Your task to perform on an android device: Set an alarm for 4pm Image 0: 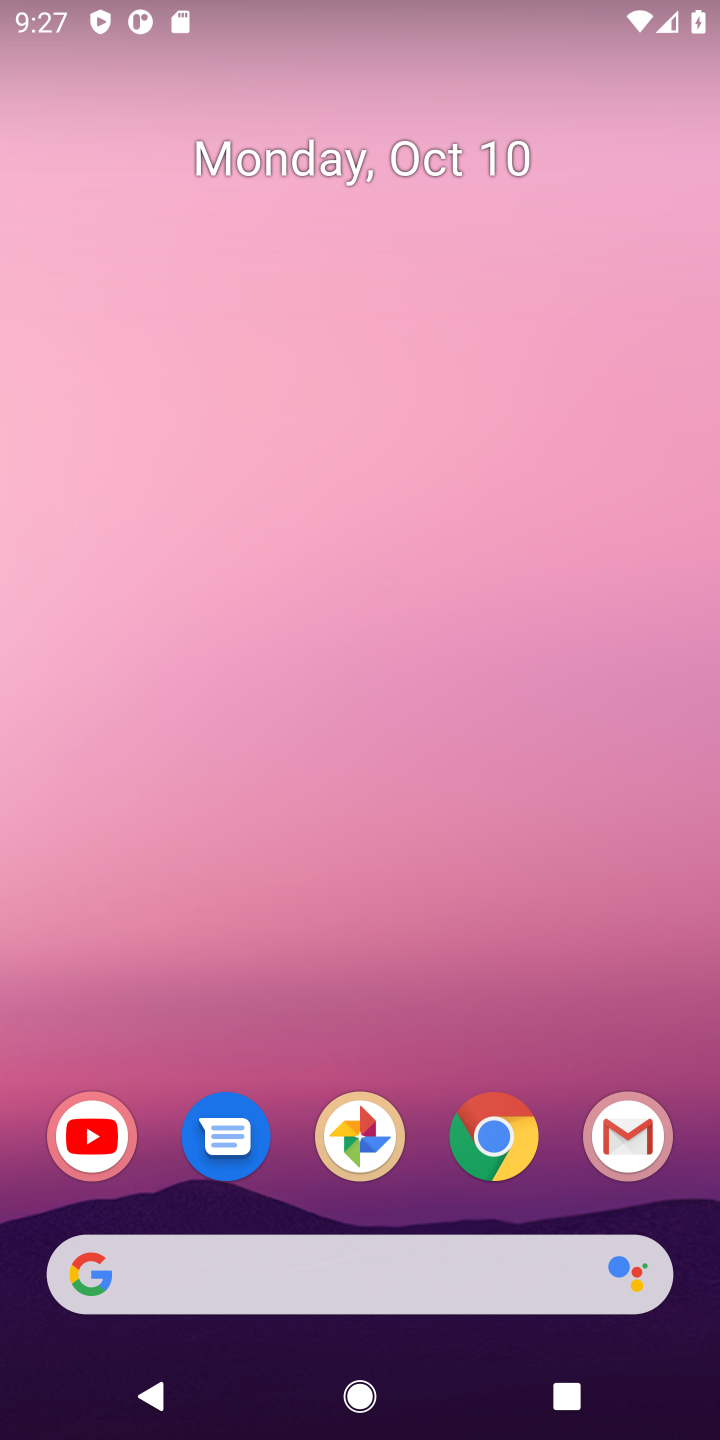
Step 0: drag from (450, 1208) to (500, 452)
Your task to perform on an android device: Set an alarm for 4pm Image 1: 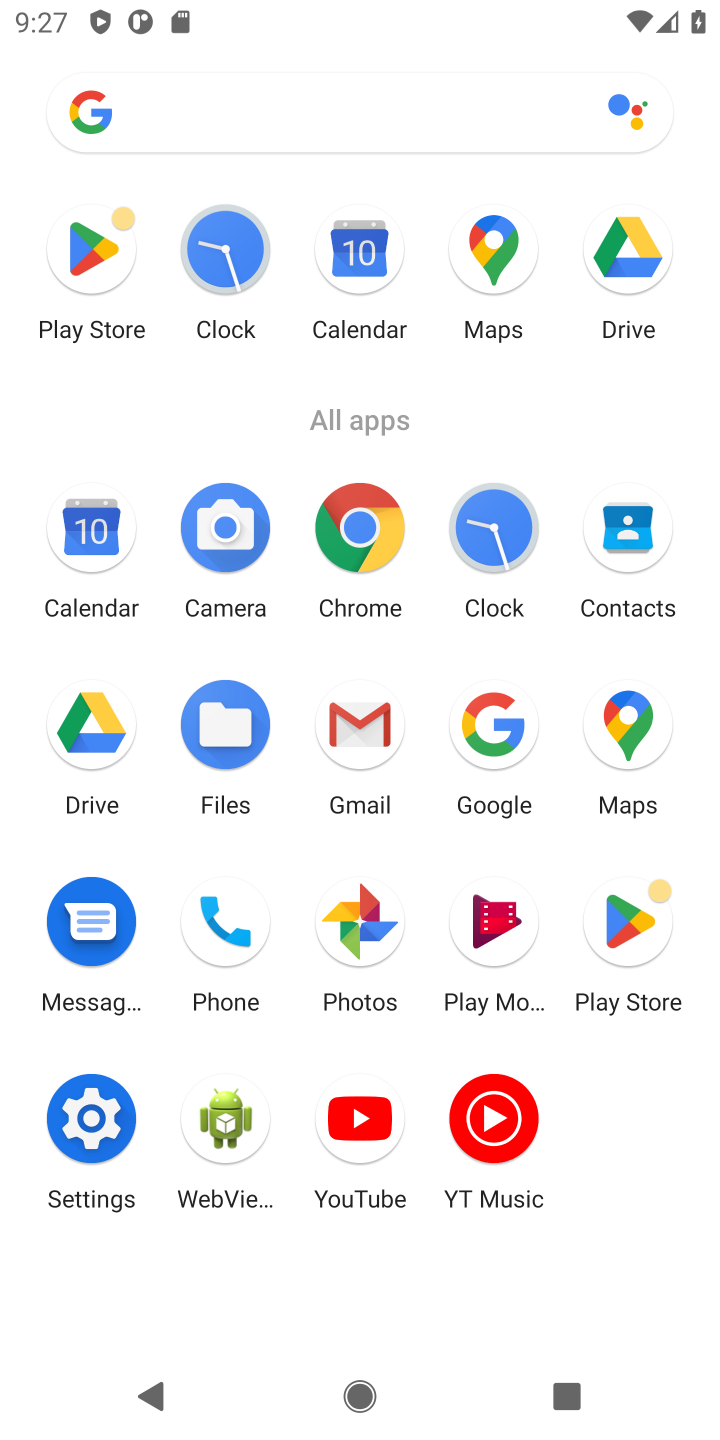
Step 1: click (225, 291)
Your task to perform on an android device: Set an alarm for 4pm Image 2: 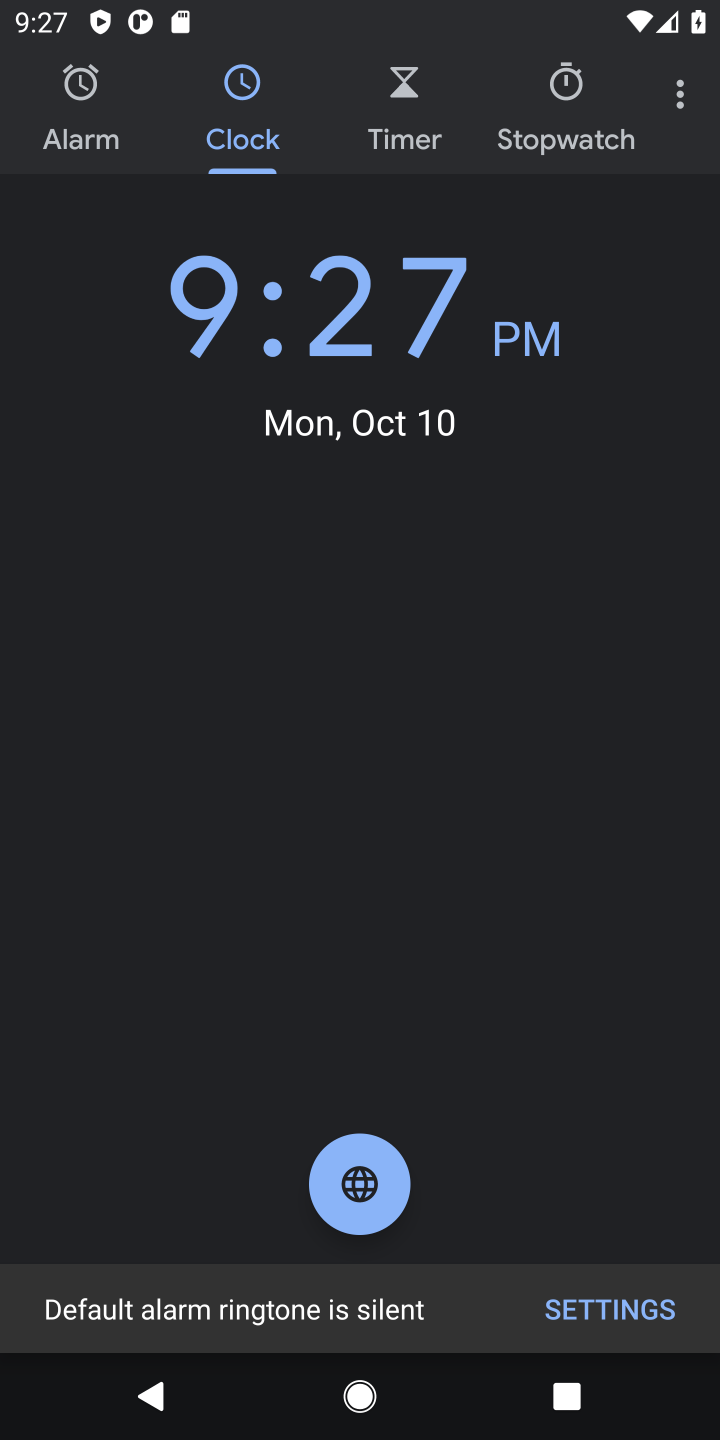
Step 2: click (80, 132)
Your task to perform on an android device: Set an alarm for 4pm Image 3: 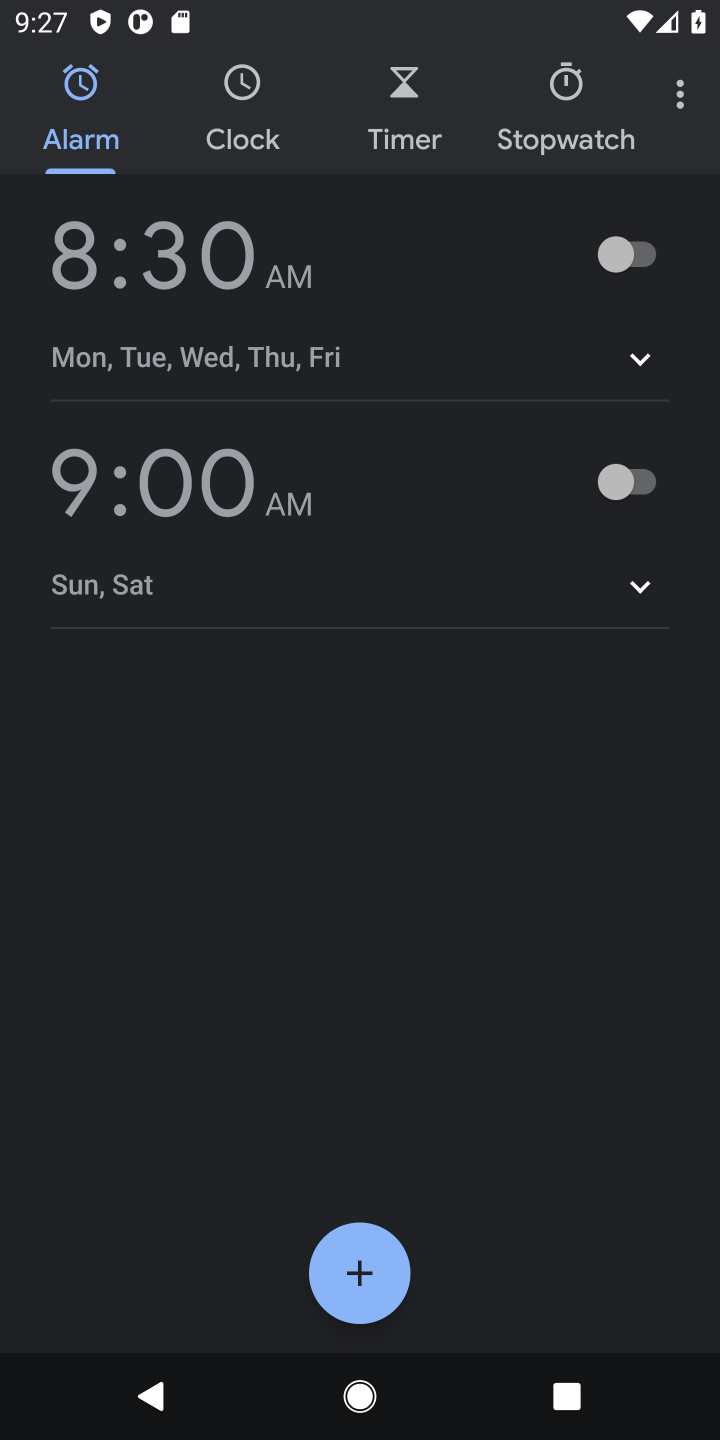
Step 3: click (381, 1265)
Your task to perform on an android device: Set an alarm for 4pm Image 4: 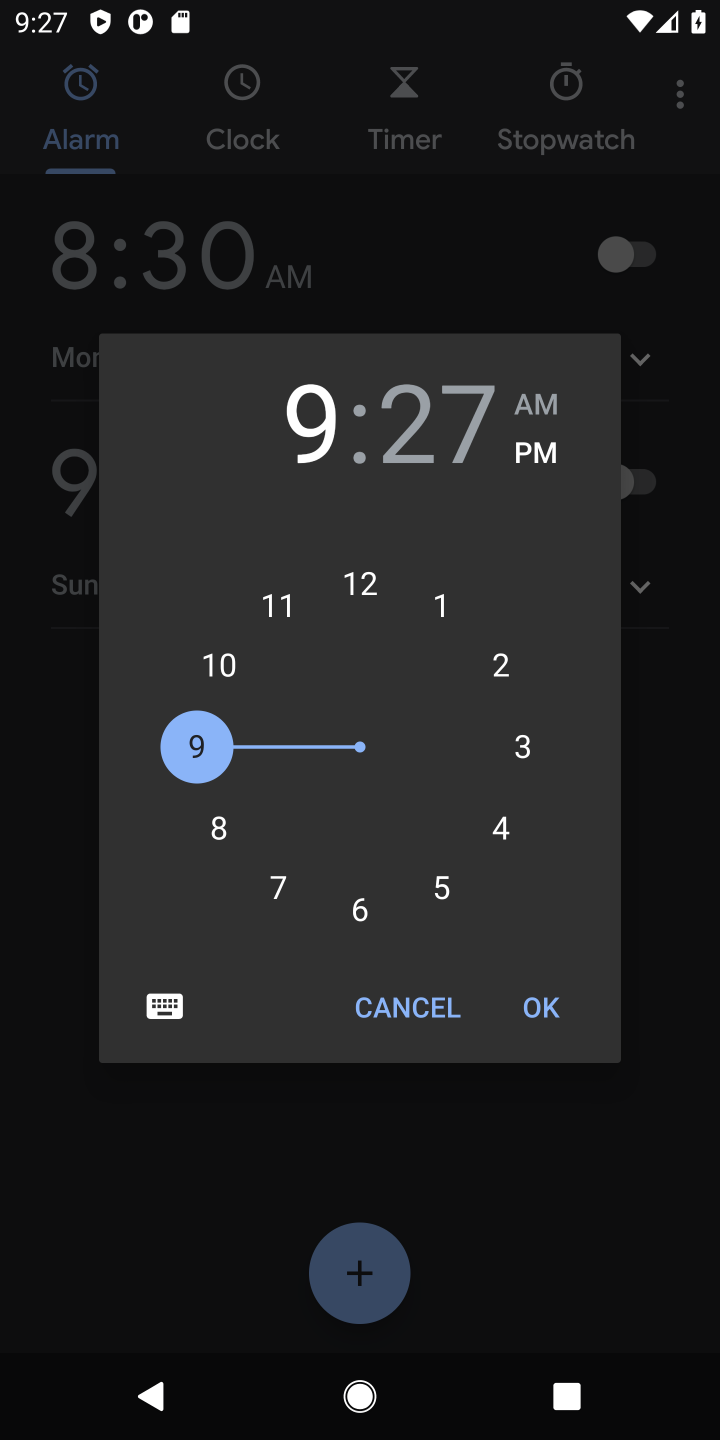
Step 4: click (498, 839)
Your task to perform on an android device: Set an alarm for 4pm Image 5: 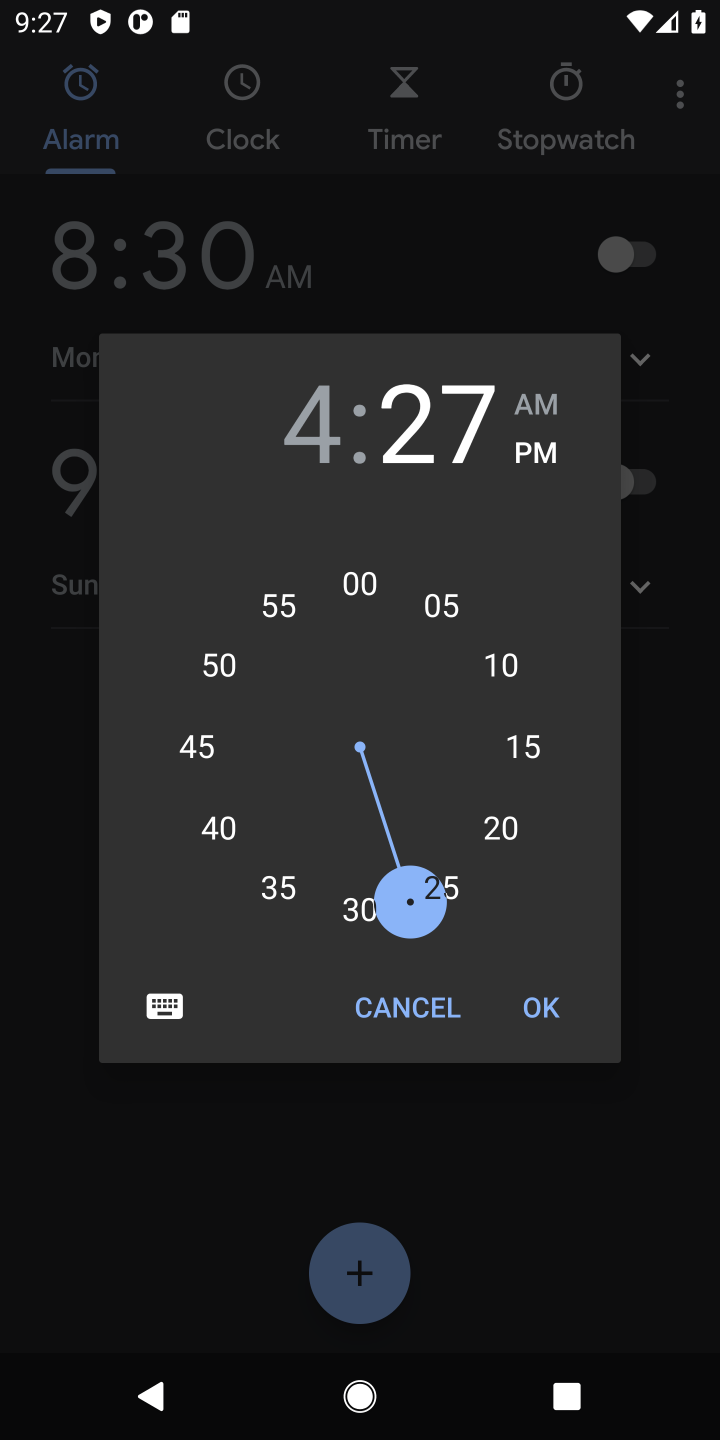
Step 5: click (363, 582)
Your task to perform on an android device: Set an alarm for 4pm Image 6: 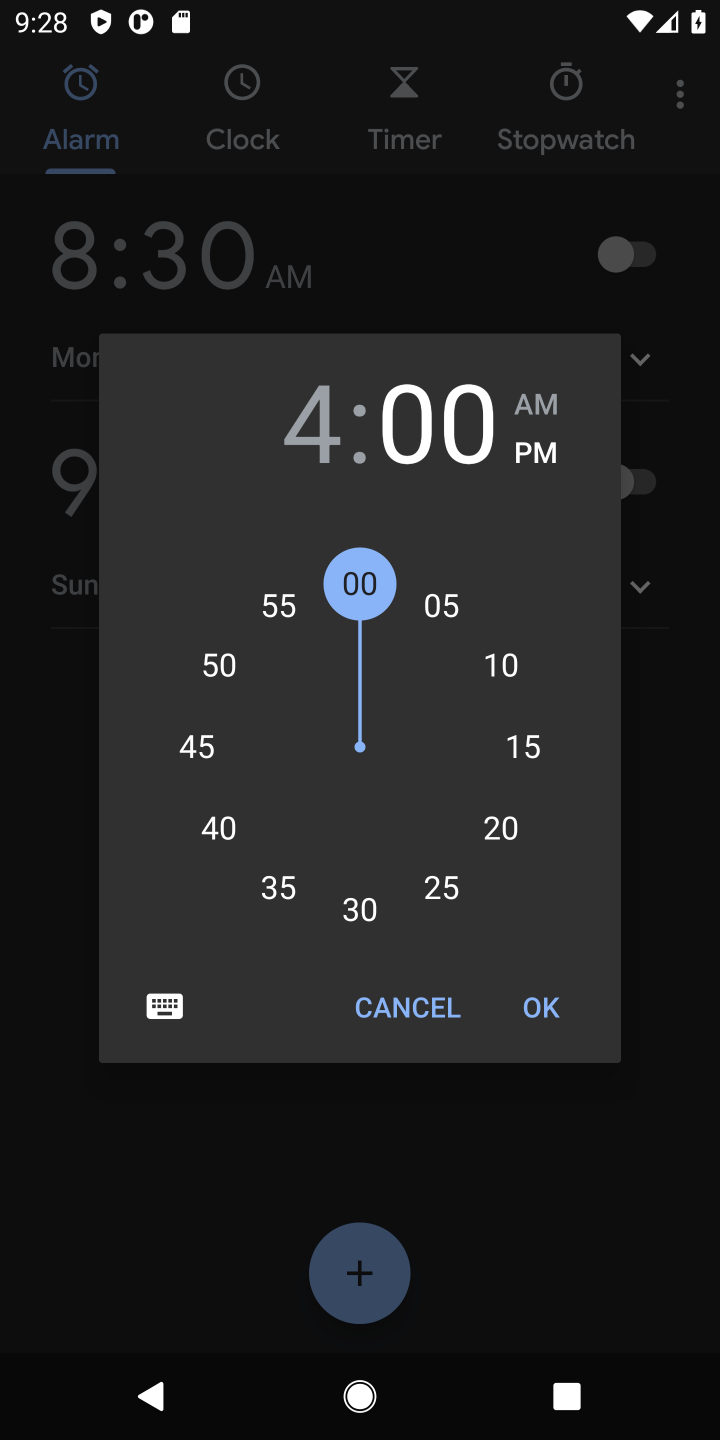
Step 6: click (546, 1003)
Your task to perform on an android device: Set an alarm for 4pm Image 7: 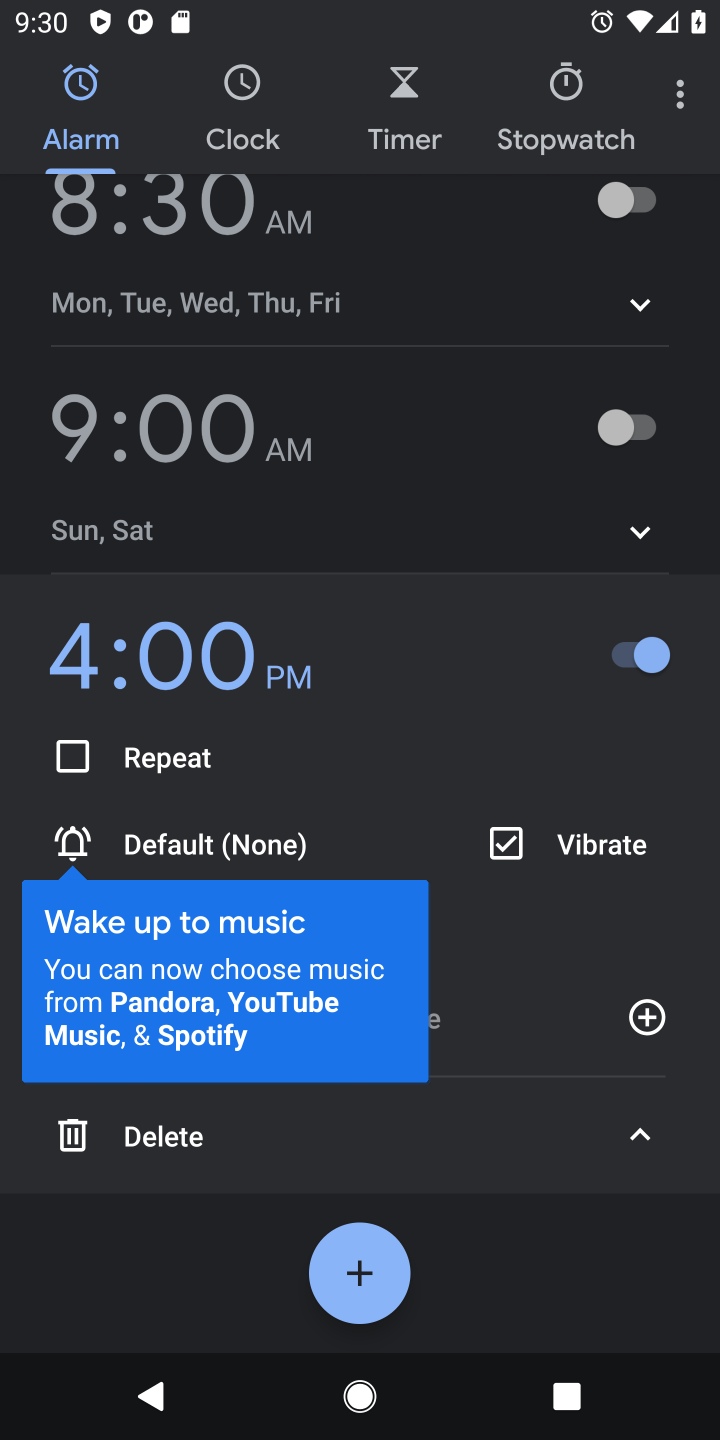
Step 7: task complete